Your task to perform on an android device: toggle show notifications on the lock screen Image 0: 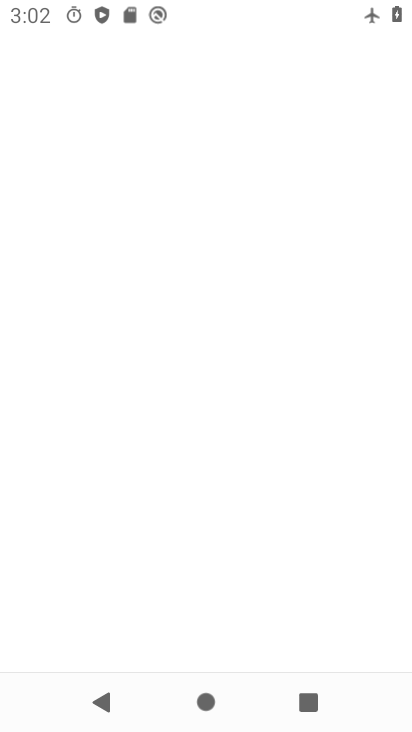
Step 0: click (242, 502)
Your task to perform on an android device: toggle show notifications on the lock screen Image 1: 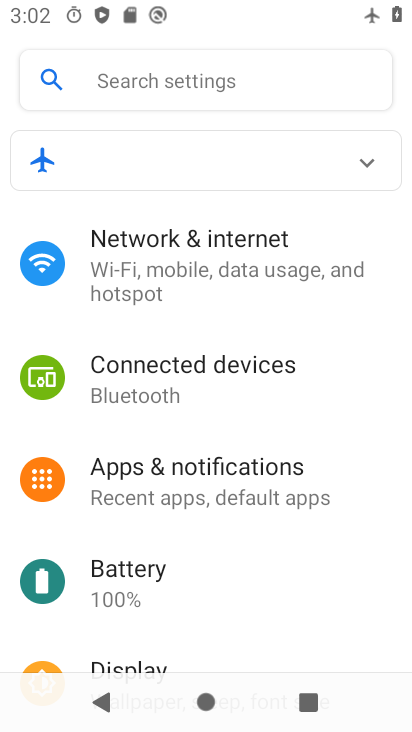
Step 1: press home button
Your task to perform on an android device: toggle show notifications on the lock screen Image 2: 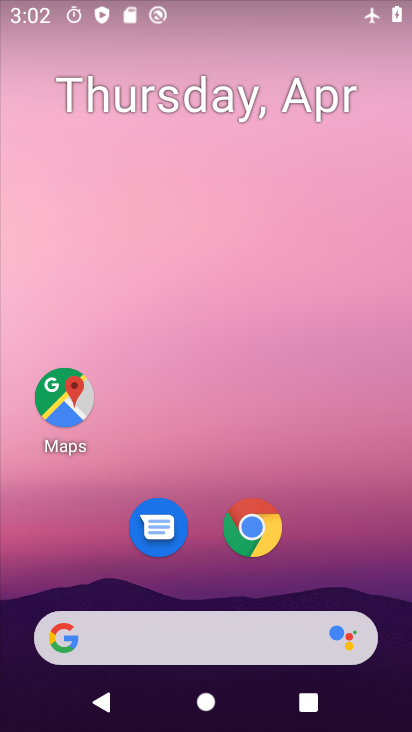
Step 2: drag from (325, 549) to (318, 118)
Your task to perform on an android device: toggle show notifications on the lock screen Image 3: 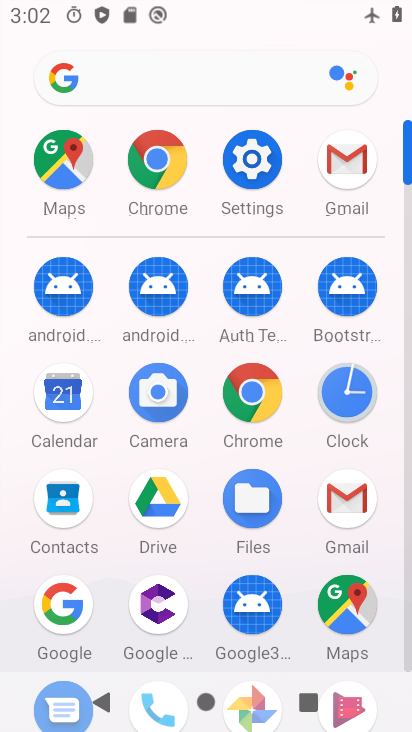
Step 3: click (248, 164)
Your task to perform on an android device: toggle show notifications on the lock screen Image 4: 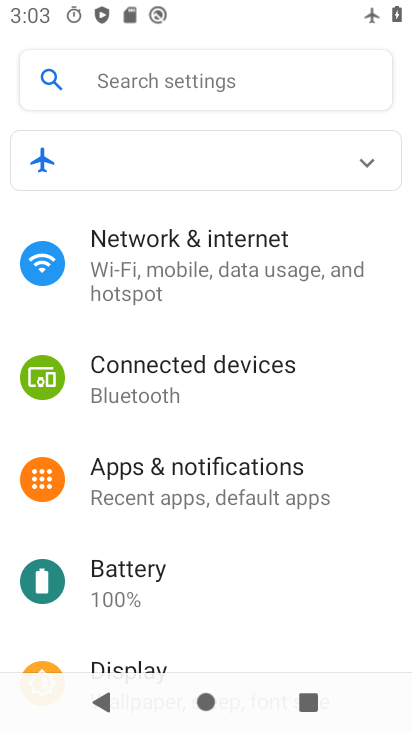
Step 4: drag from (162, 515) to (210, 194)
Your task to perform on an android device: toggle show notifications on the lock screen Image 5: 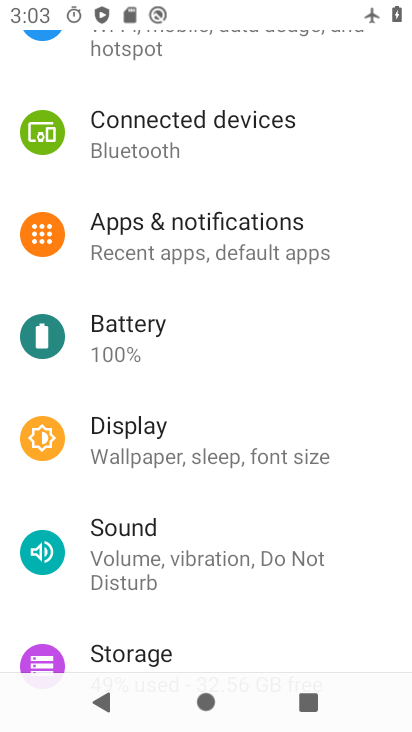
Step 5: click (212, 254)
Your task to perform on an android device: toggle show notifications on the lock screen Image 6: 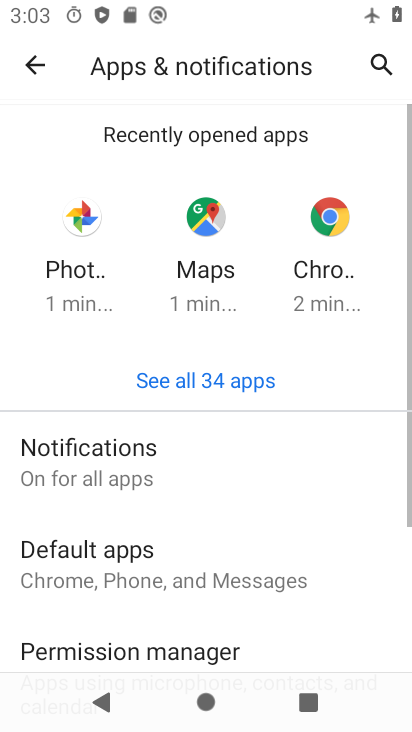
Step 6: click (149, 467)
Your task to perform on an android device: toggle show notifications on the lock screen Image 7: 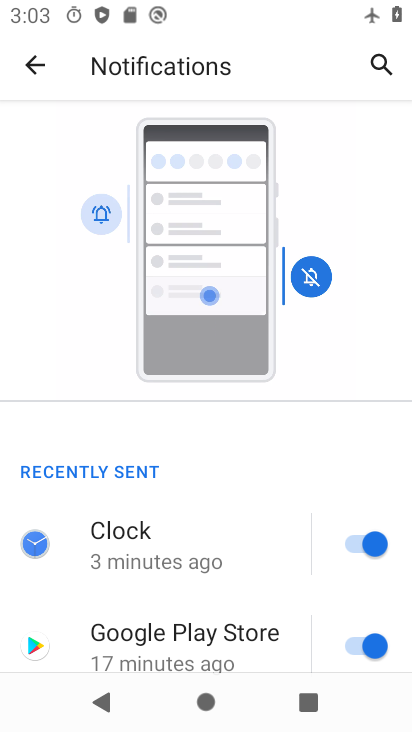
Step 7: drag from (172, 483) to (225, 19)
Your task to perform on an android device: toggle show notifications on the lock screen Image 8: 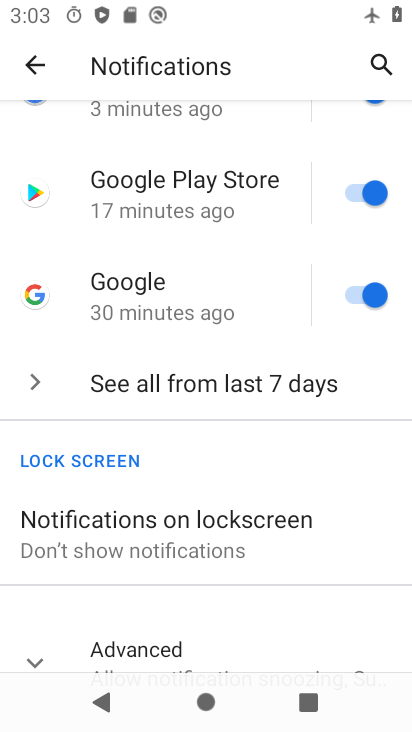
Step 8: click (154, 505)
Your task to perform on an android device: toggle show notifications on the lock screen Image 9: 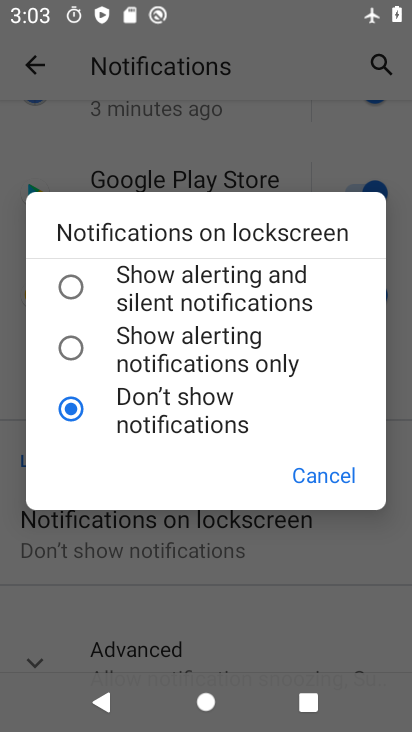
Step 9: click (202, 348)
Your task to perform on an android device: toggle show notifications on the lock screen Image 10: 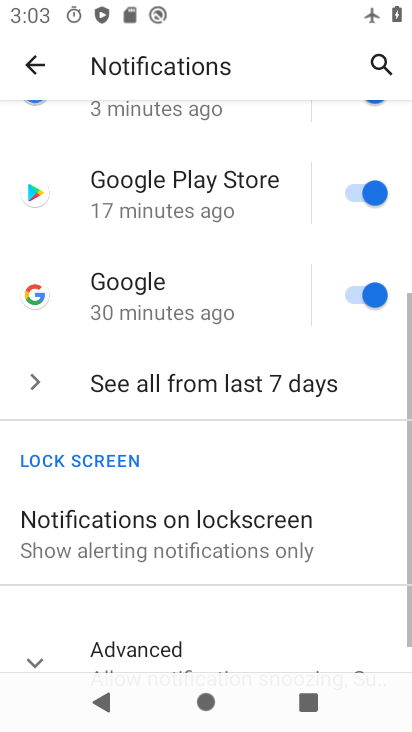
Step 10: task complete